Your task to perform on an android device: When is my next meeting? Image 0: 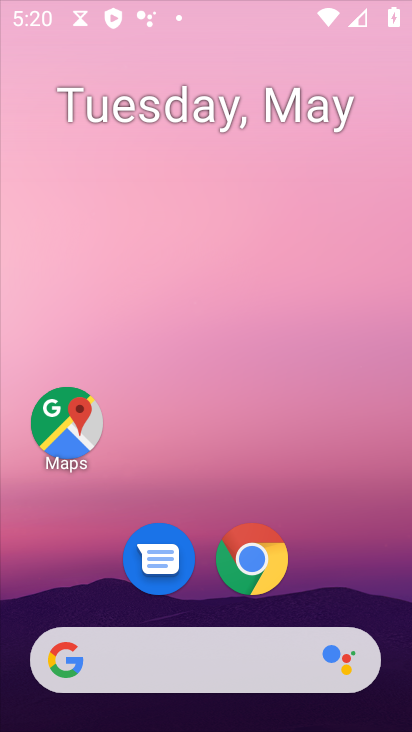
Step 0: drag from (343, 710) to (274, 221)
Your task to perform on an android device: When is my next meeting? Image 1: 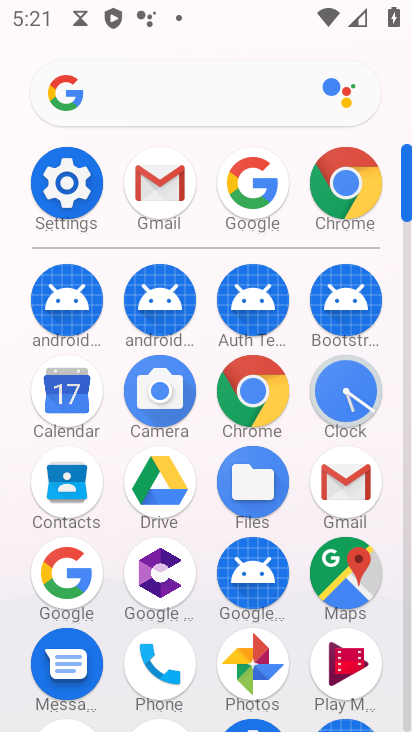
Step 1: click (64, 403)
Your task to perform on an android device: When is my next meeting? Image 2: 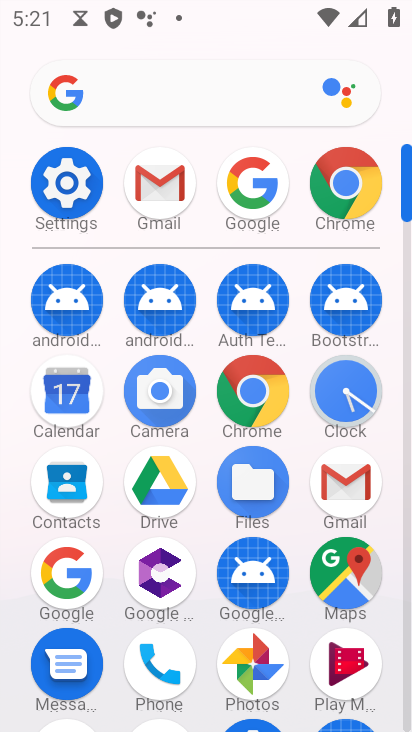
Step 2: click (64, 403)
Your task to perform on an android device: When is my next meeting? Image 3: 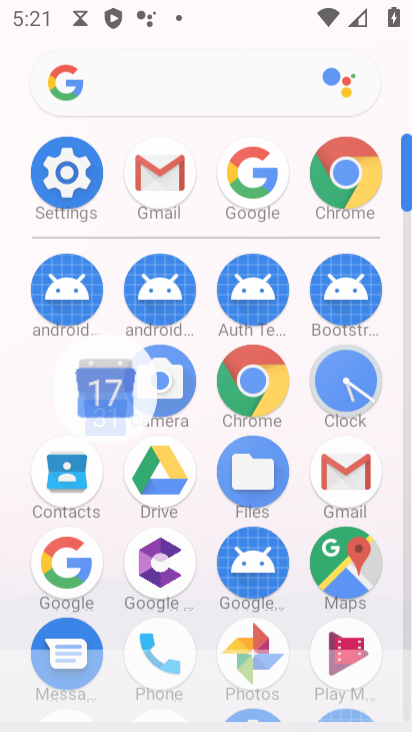
Step 3: click (64, 403)
Your task to perform on an android device: When is my next meeting? Image 4: 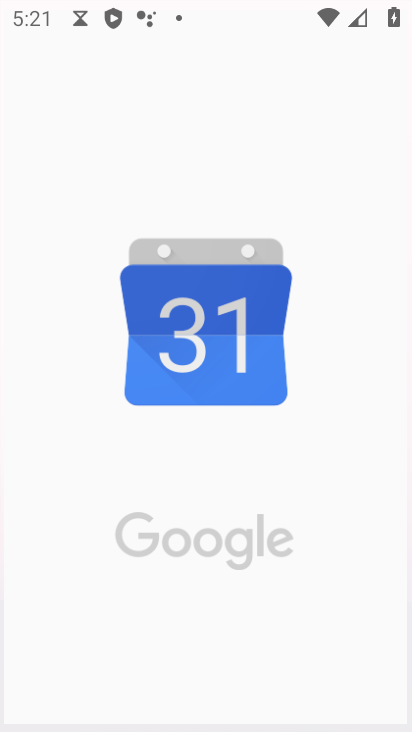
Step 4: click (64, 403)
Your task to perform on an android device: When is my next meeting? Image 5: 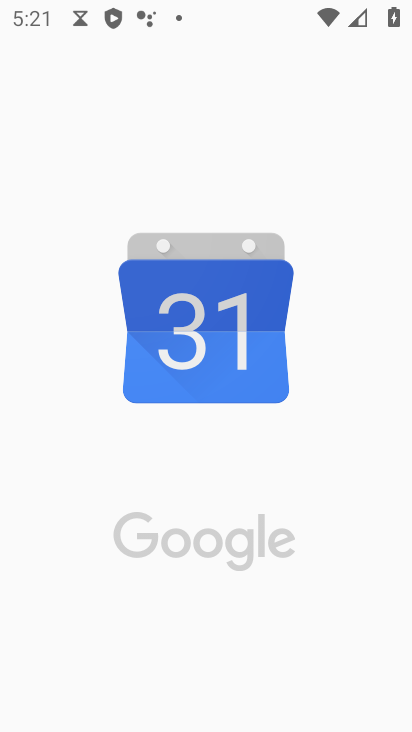
Step 5: click (64, 403)
Your task to perform on an android device: When is my next meeting? Image 6: 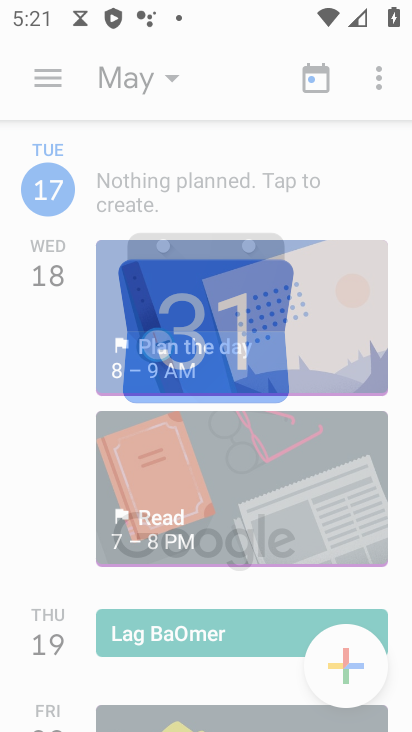
Step 6: click (69, 404)
Your task to perform on an android device: When is my next meeting? Image 7: 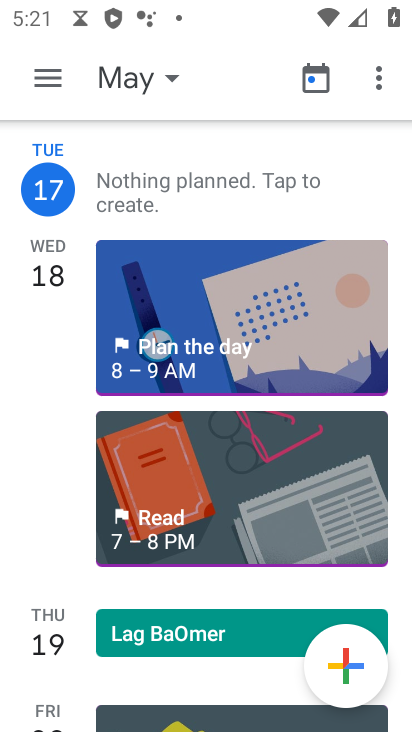
Step 7: click (166, 73)
Your task to perform on an android device: When is my next meeting? Image 8: 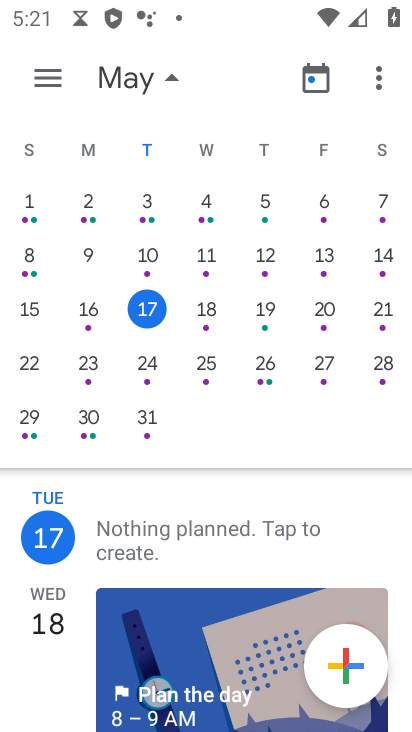
Step 8: drag from (182, 609) to (176, 267)
Your task to perform on an android device: When is my next meeting? Image 9: 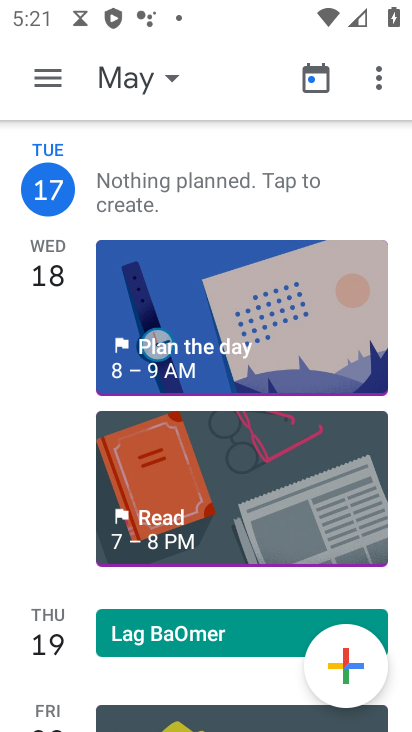
Step 9: drag from (253, 257) to (270, 140)
Your task to perform on an android device: When is my next meeting? Image 10: 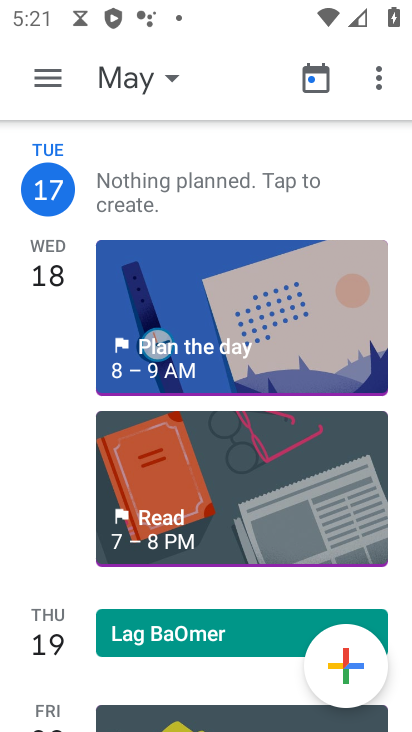
Step 10: drag from (167, 366) to (153, 137)
Your task to perform on an android device: When is my next meeting? Image 11: 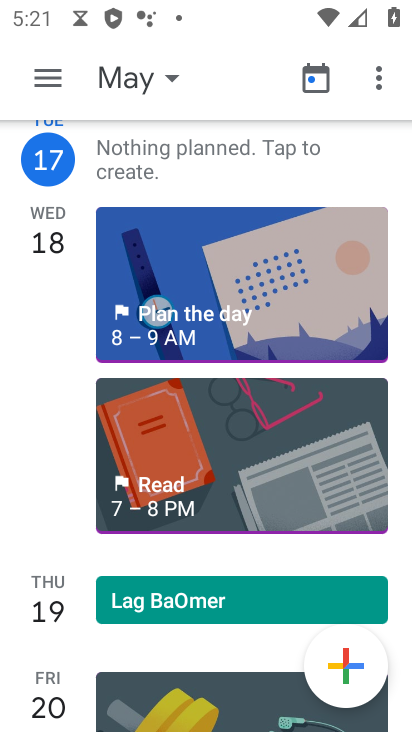
Step 11: click (236, 127)
Your task to perform on an android device: When is my next meeting? Image 12: 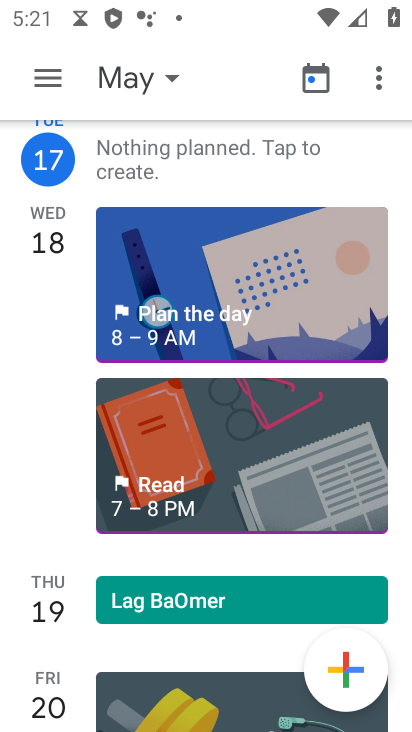
Step 12: click (274, 206)
Your task to perform on an android device: When is my next meeting? Image 13: 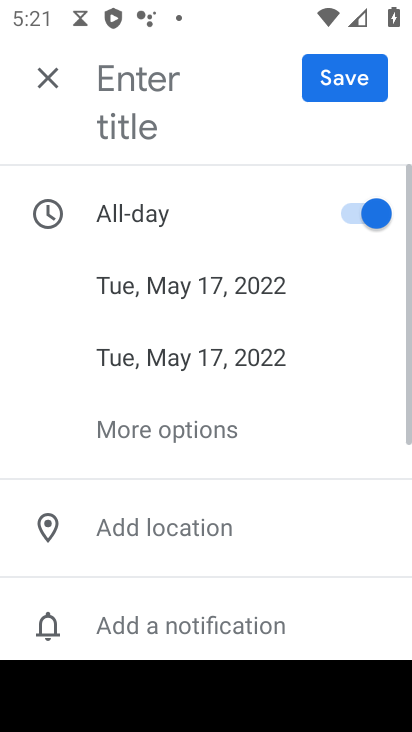
Step 13: click (172, 683)
Your task to perform on an android device: When is my next meeting? Image 14: 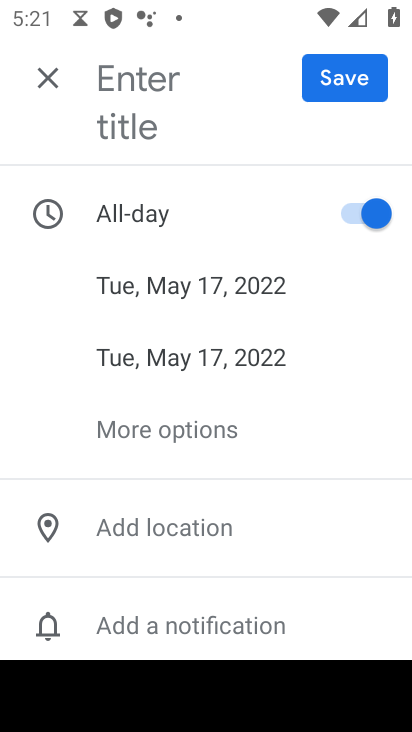
Step 14: click (44, 74)
Your task to perform on an android device: When is my next meeting? Image 15: 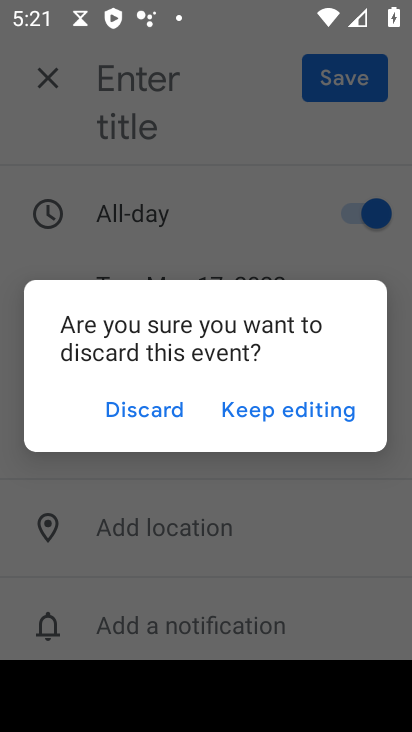
Step 15: click (159, 414)
Your task to perform on an android device: When is my next meeting? Image 16: 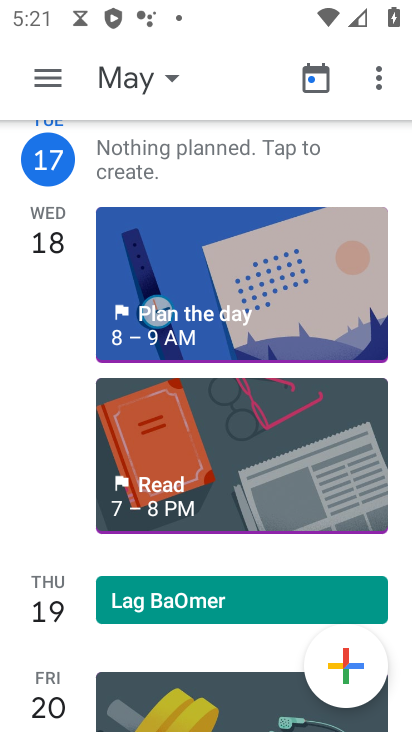
Step 16: click (161, 697)
Your task to perform on an android device: When is my next meeting? Image 17: 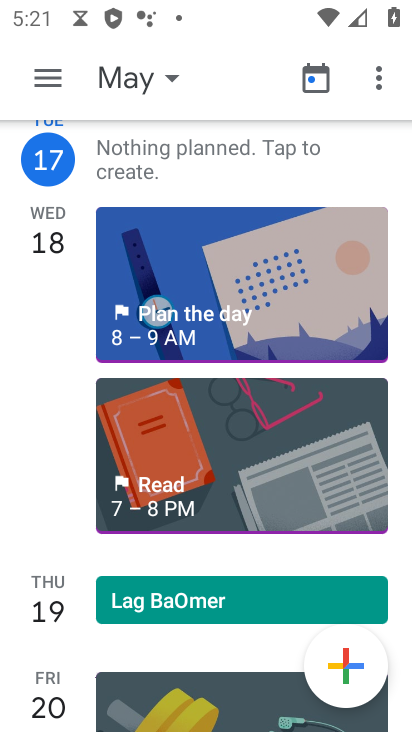
Step 17: click (164, 697)
Your task to perform on an android device: When is my next meeting? Image 18: 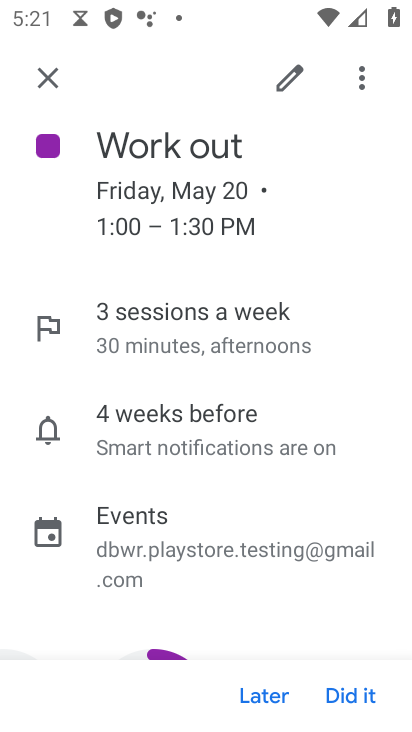
Step 18: task complete